Your task to perform on an android device: delete location history Image 0: 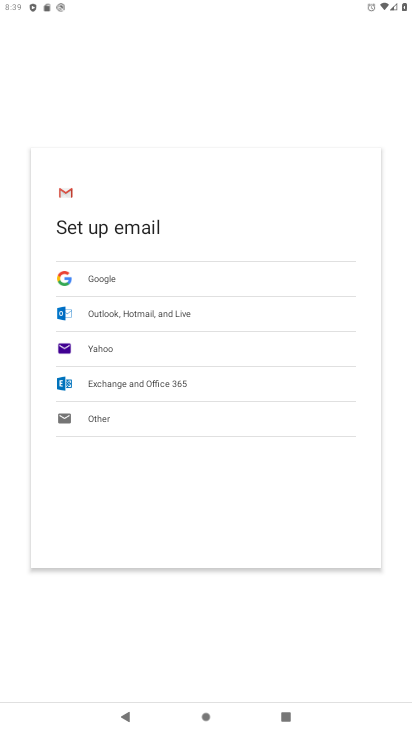
Step 0: press home button
Your task to perform on an android device: delete location history Image 1: 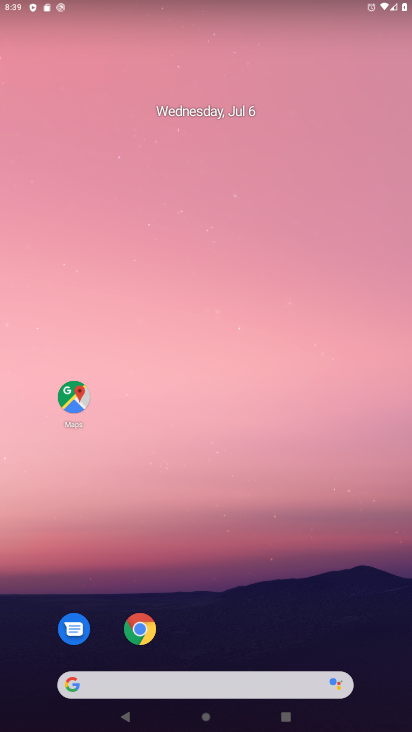
Step 1: drag from (78, 510) to (294, 4)
Your task to perform on an android device: delete location history Image 2: 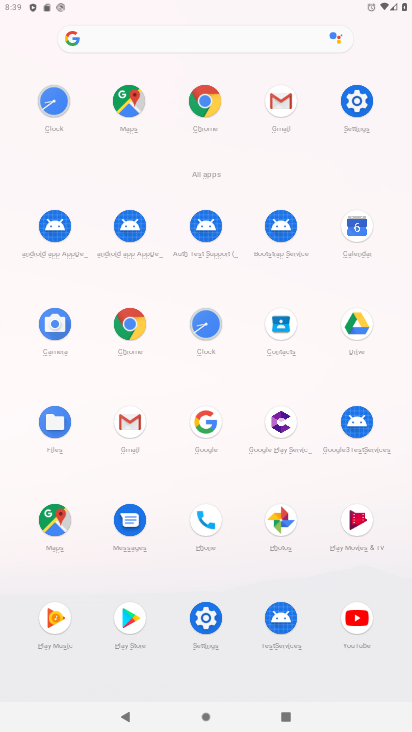
Step 2: click (347, 106)
Your task to perform on an android device: delete location history Image 3: 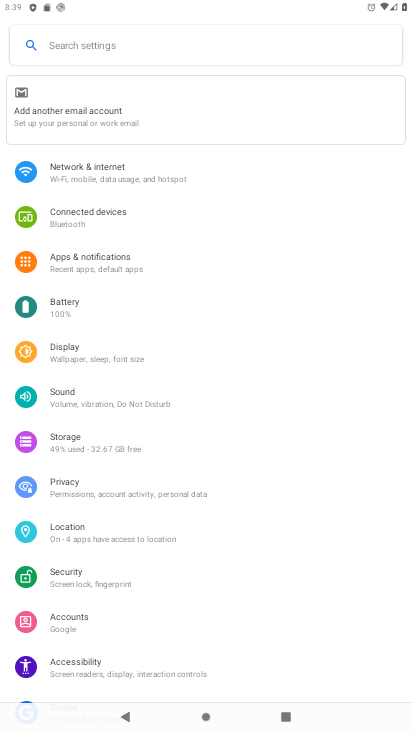
Step 3: click (67, 528)
Your task to perform on an android device: delete location history Image 4: 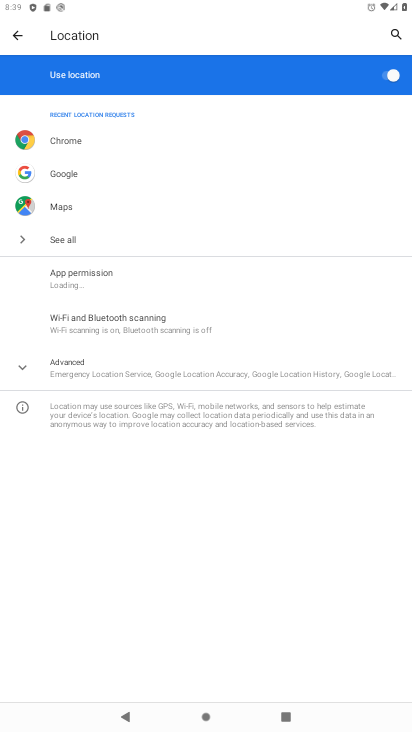
Step 4: click (126, 369)
Your task to perform on an android device: delete location history Image 5: 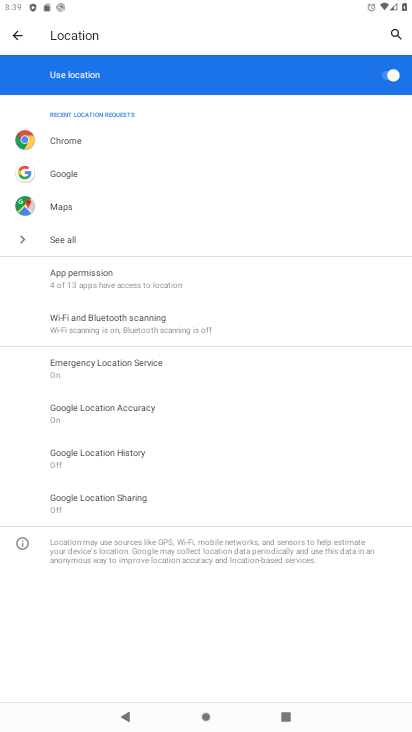
Step 5: click (128, 455)
Your task to perform on an android device: delete location history Image 6: 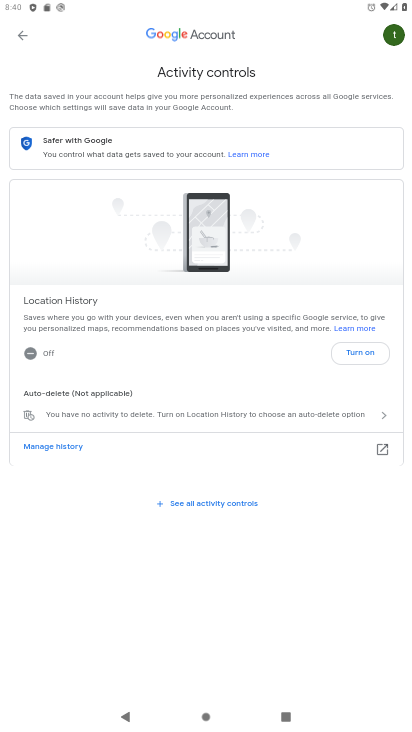
Step 6: click (63, 445)
Your task to perform on an android device: delete location history Image 7: 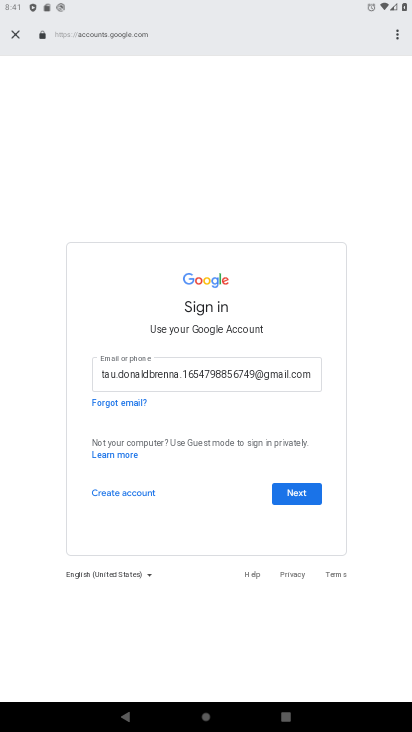
Step 7: task complete